Your task to perform on an android device: turn off notifications settings in the gmail app Image 0: 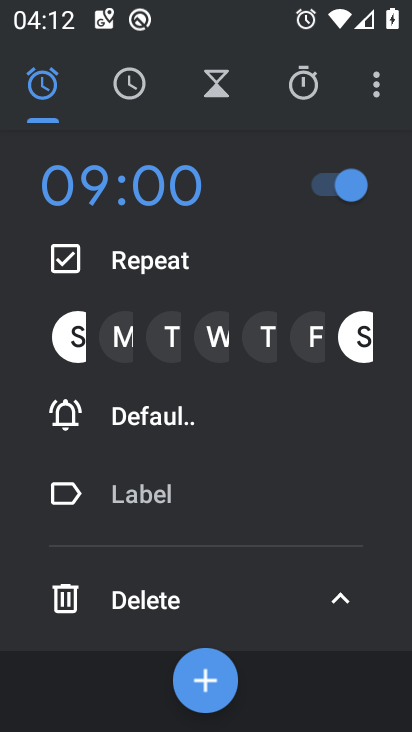
Step 0: press back button
Your task to perform on an android device: turn off notifications settings in the gmail app Image 1: 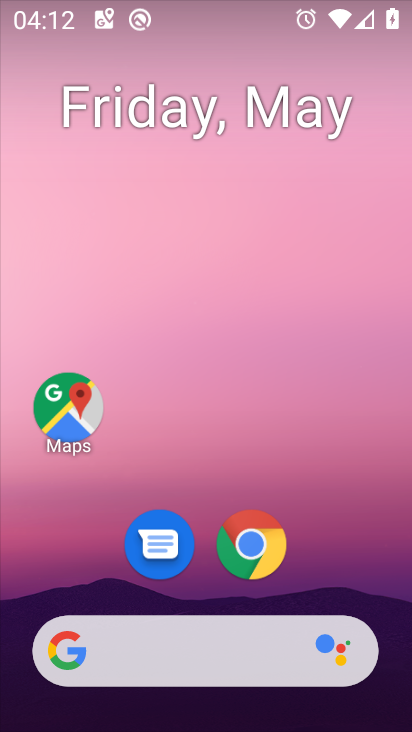
Step 1: drag from (256, 675) to (197, 69)
Your task to perform on an android device: turn off notifications settings in the gmail app Image 2: 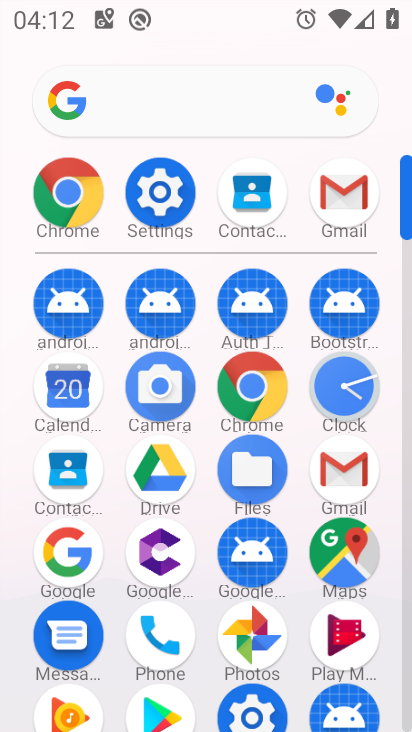
Step 2: click (338, 467)
Your task to perform on an android device: turn off notifications settings in the gmail app Image 3: 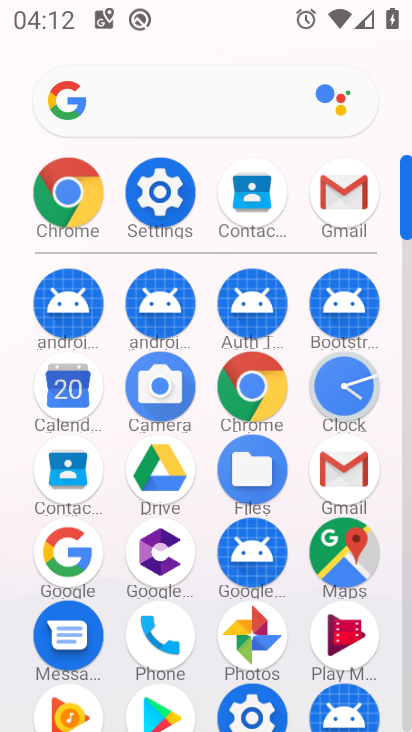
Step 3: click (338, 467)
Your task to perform on an android device: turn off notifications settings in the gmail app Image 4: 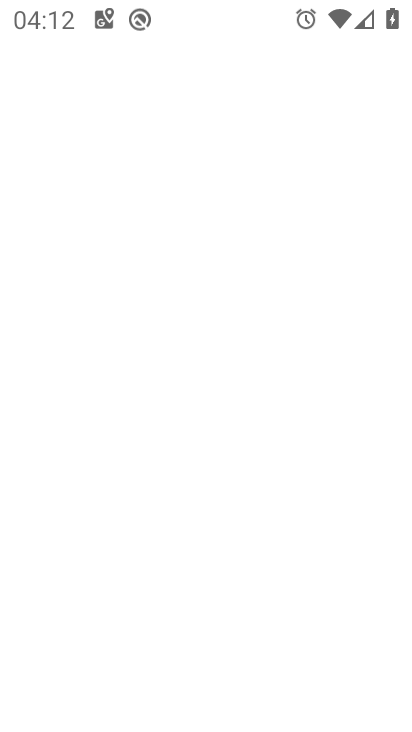
Step 4: click (337, 463)
Your task to perform on an android device: turn off notifications settings in the gmail app Image 5: 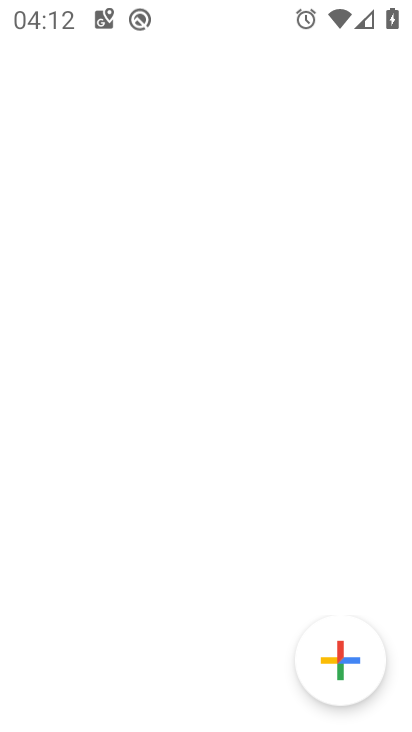
Step 5: click (343, 457)
Your task to perform on an android device: turn off notifications settings in the gmail app Image 6: 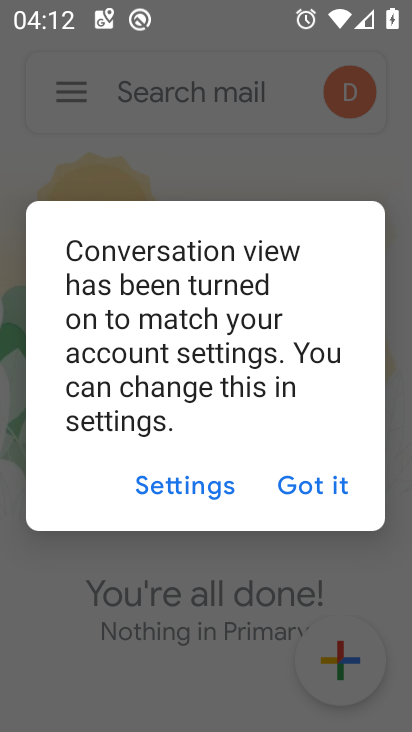
Step 6: click (170, 481)
Your task to perform on an android device: turn off notifications settings in the gmail app Image 7: 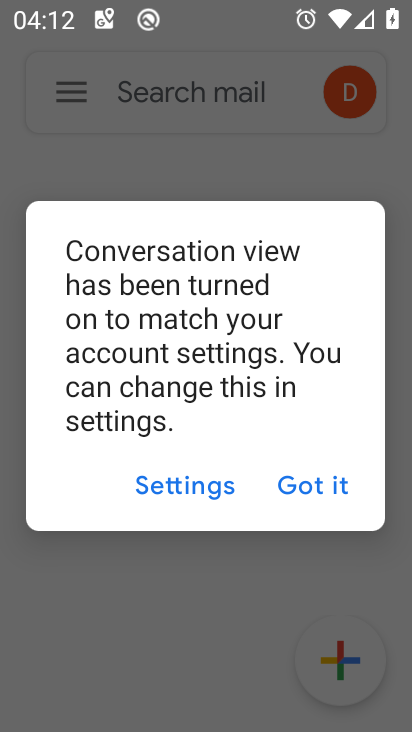
Step 7: click (171, 482)
Your task to perform on an android device: turn off notifications settings in the gmail app Image 8: 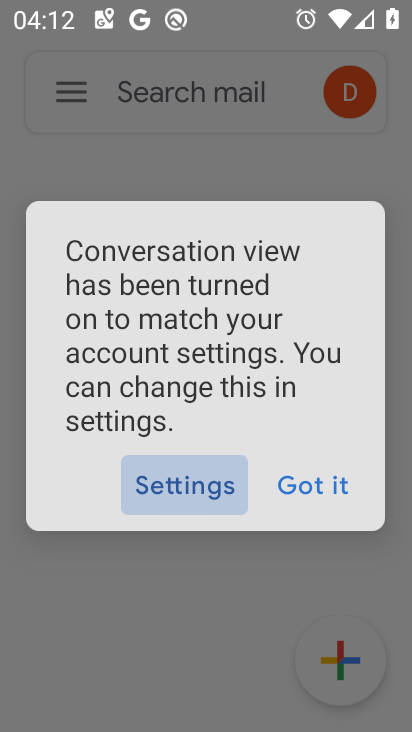
Step 8: click (178, 481)
Your task to perform on an android device: turn off notifications settings in the gmail app Image 9: 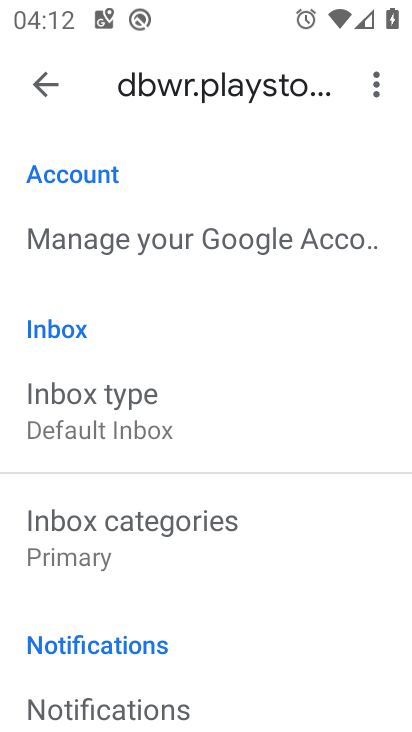
Step 9: drag from (151, 615) to (55, 171)
Your task to perform on an android device: turn off notifications settings in the gmail app Image 10: 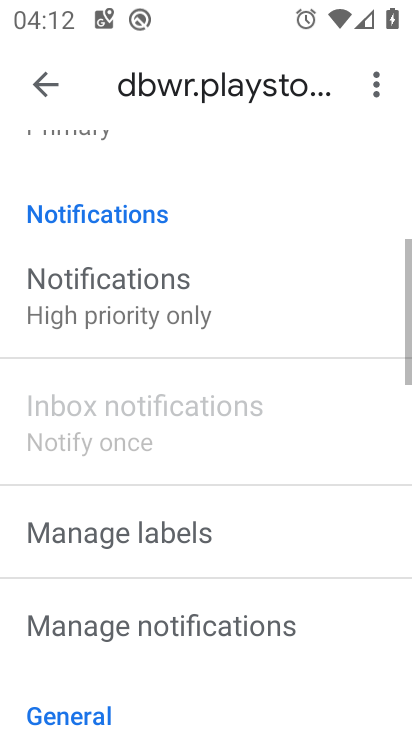
Step 10: drag from (110, 564) to (27, 154)
Your task to perform on an android device: turn off notifications settings in the gmail app Image 11: 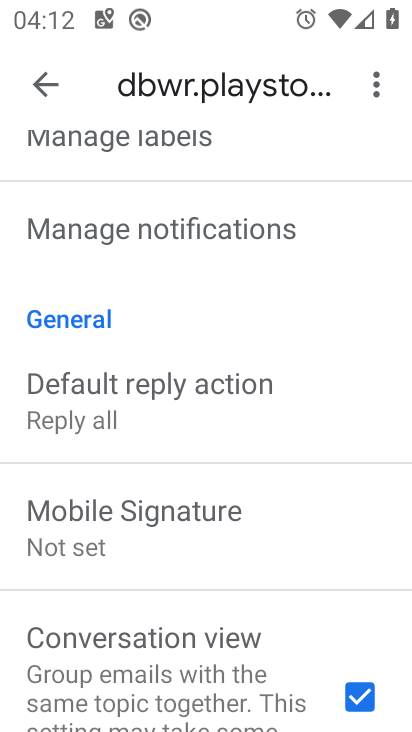
Step 11: drag from (104, 280) to (140, 528)
Your task to perform on an android device: turn off notifications settings in the gmail app Image 12: 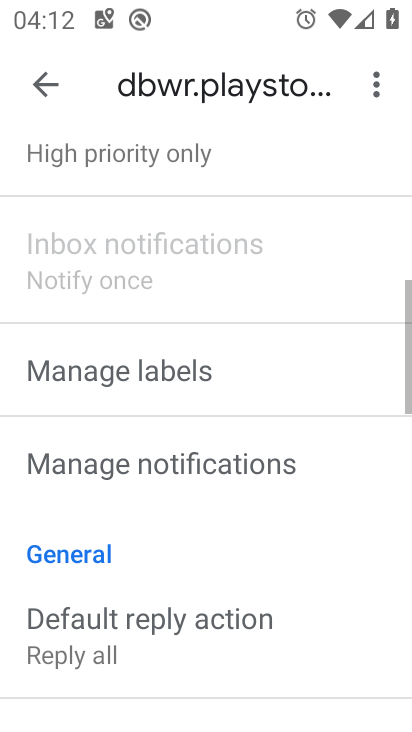
Step 12: drag from (127, 352) to (159, 461)
Your task to perform on an android device: turn off notifications settings in the gmail app Image 13: 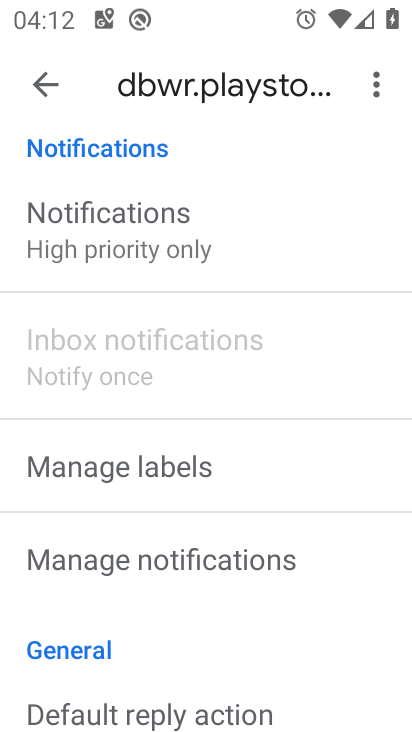
Step 13: click (119, 234)
Your task to perform on an android device: turn off notifications settings in the gmail app Image 14: 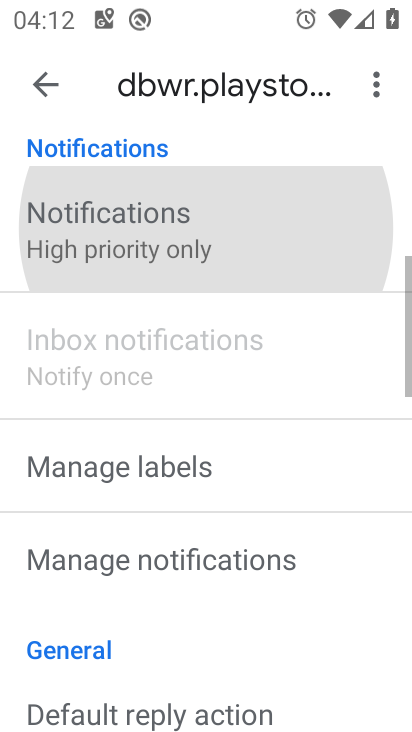
Step 14: click (119, 234)
Your task to perform on an android device: turn off notifications settings in the gmail app Image 15: 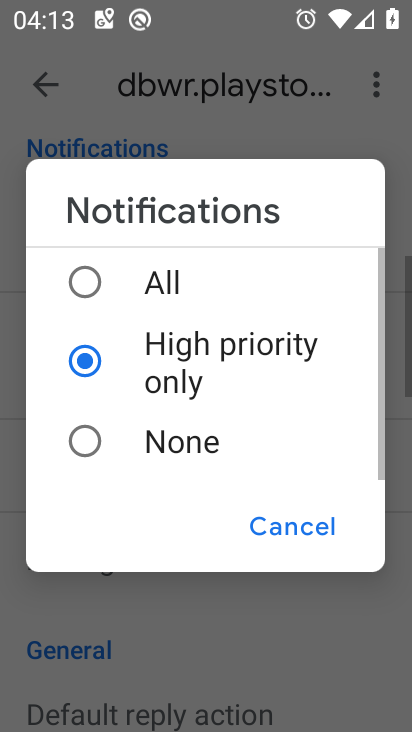
Step 15: click (78, 448)
Your task to perform on an android device: turn off notifications settings in the gmail app Image 16: 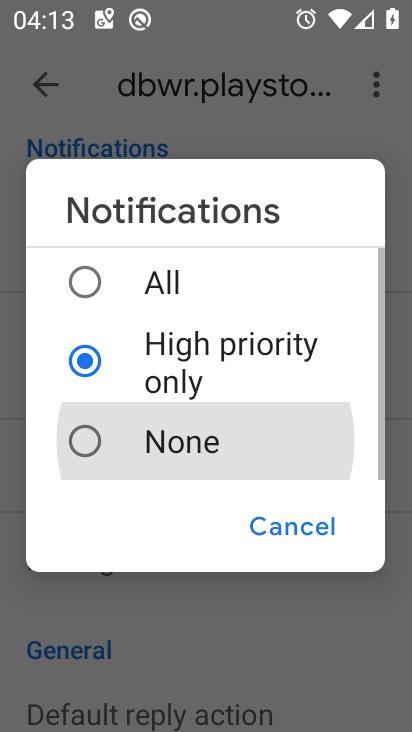
Step 16: click (78, 448)
Your task to perform on an android device: turn off notifications settings in the gmail app Image 17: 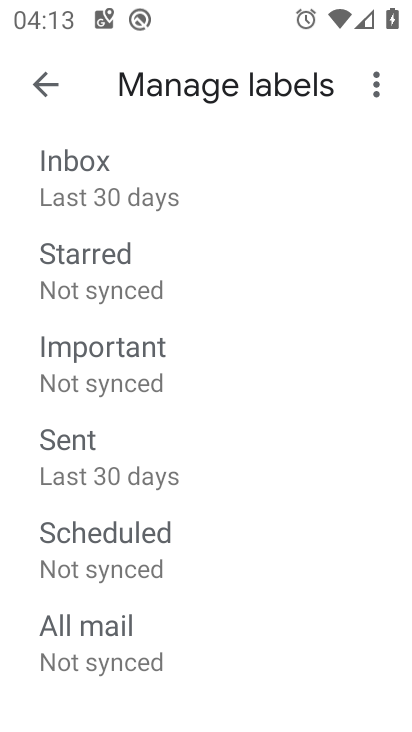
Step 17: click (35, 78)
Your task to perform on an android device: turn off notifications settings in the gmail app Image 18: 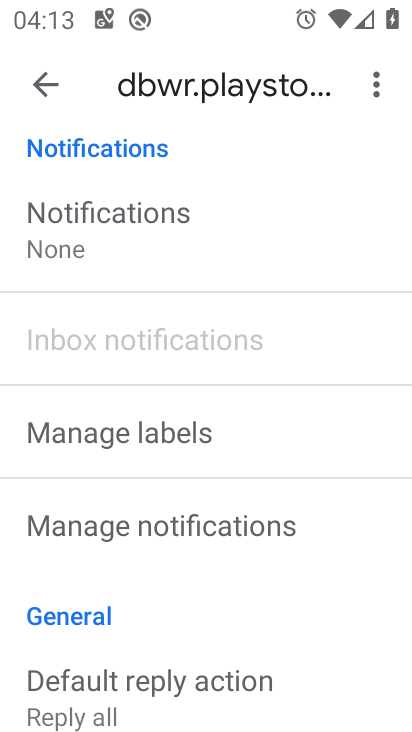
Step 18: task complete